Your task to perform on an android device: Open Google Chrome and open the bookmarks view Image 0: 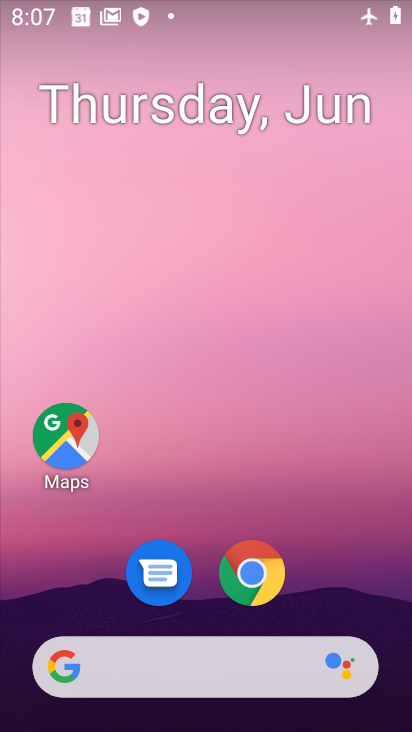
Step 0: drag from (318, 599) to (302, 215)
Your task to perform on an android device: Open Google Chrome and open the bookmarks view Image 1: 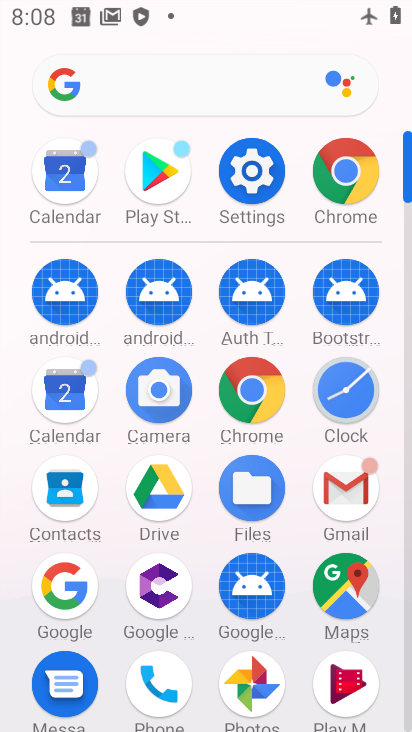
Step 1: click (355, 158)
Your task to perform on an android device: Open Google Chrome and open the bookmarks view Image 2: 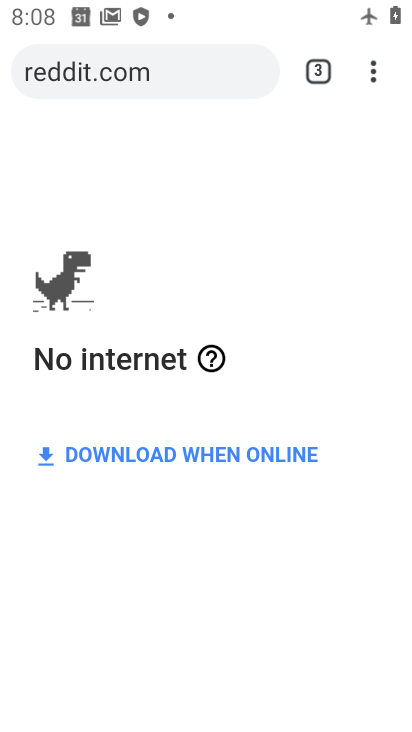
Step 2: click (365, 73)
Your task to perform on an android device: Open Google Chrome and open the bookmarks view Image 3: 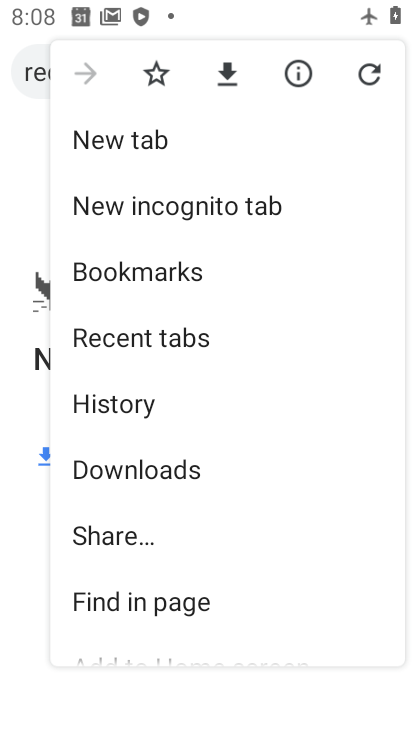
Step 3: click (190, 268)
Your task to perform on an android device: Open Google Chrome and open the bookmarks view Image 4: 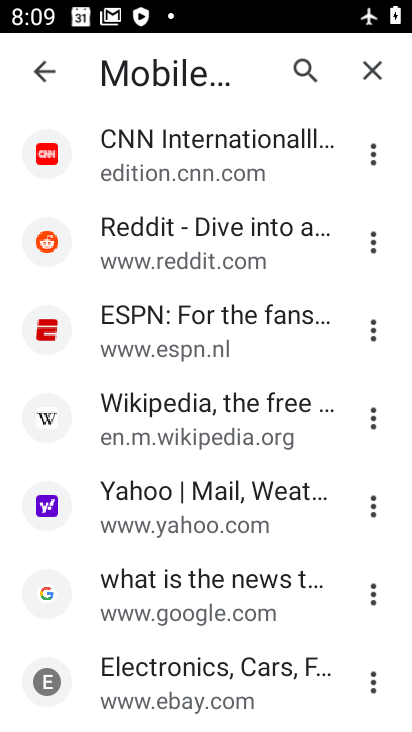
Step 4: task complete